Your task to perform on an android device: Go to internet settings Image 0: 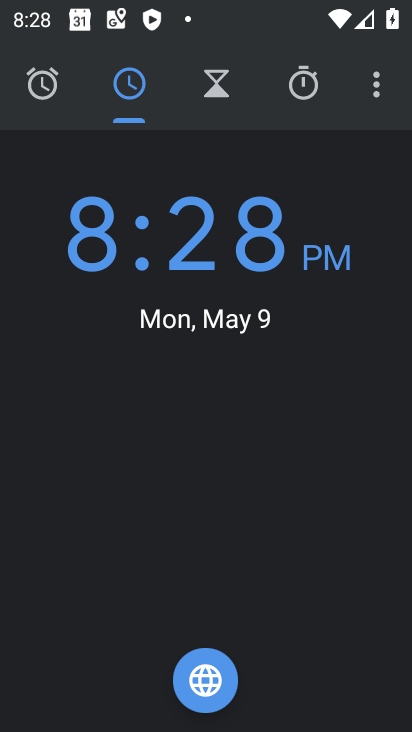
Step 0: press home button
Your task to perform on an android device: Go to internet settings Image 1: 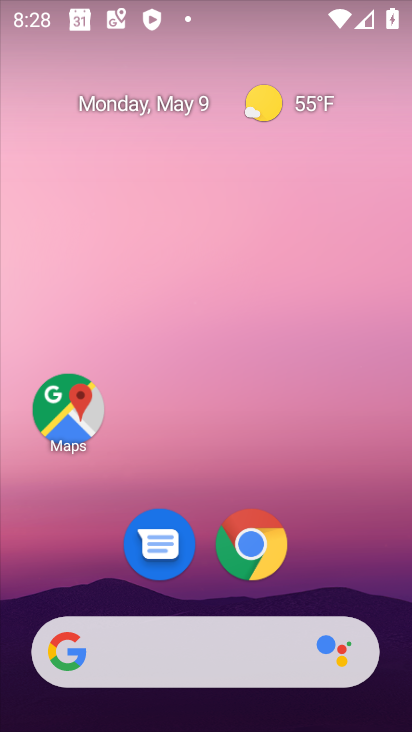
Step 1: drag from (191, 594) to (223, 122)
Your task to perform on an android device: Go to internet settings Image 2: 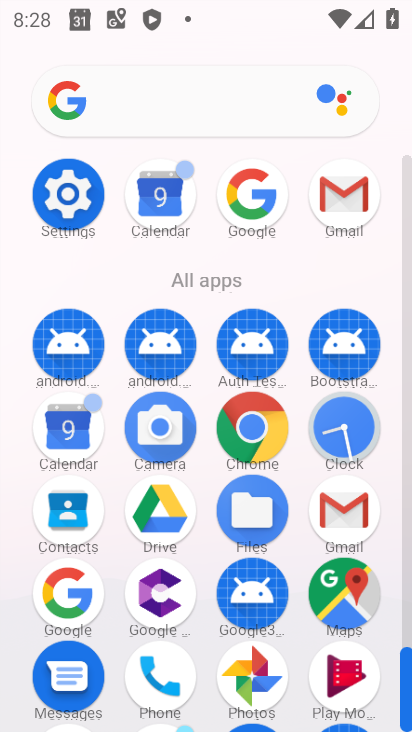
Step 2: click (60, 220)
Your task to perform on an android device: Go to internet settings Image 3: 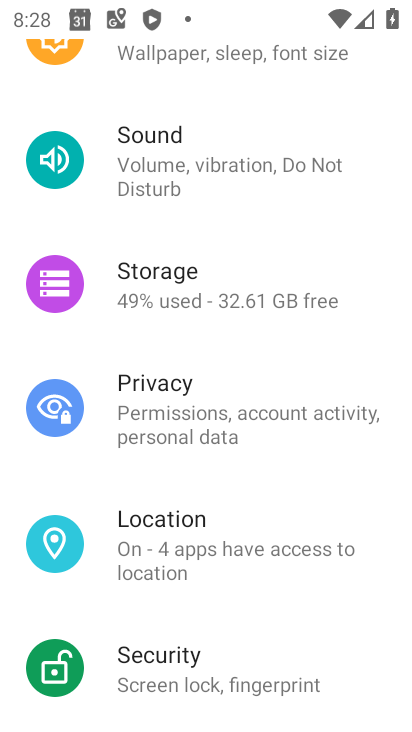
Step 3: drag from (224, 164) to (242, 552)
Your task to perform on an android device: Go to internet settings Image 4: 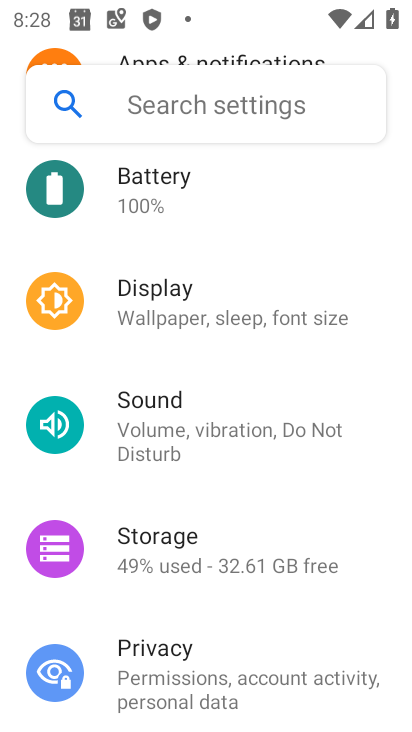
Step 4: drag from (235, 229) to (240, 578)
Your task to perform on an android device: Go to internet settings Image 5: 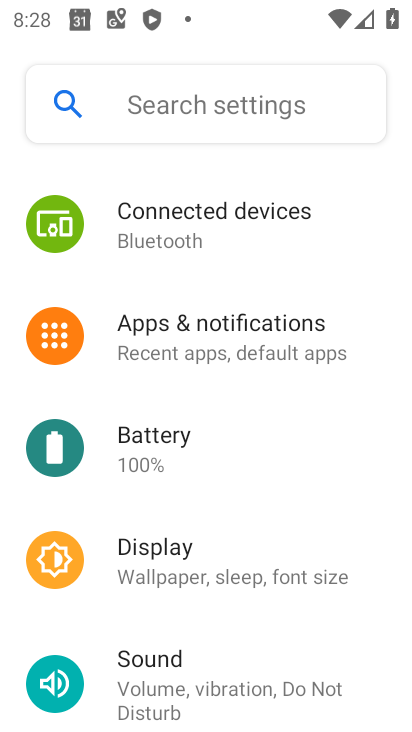
Step 5: drag from (204, 209) to (211, 575)
Your task to perform on an android device: Go to internet settings Image 6: 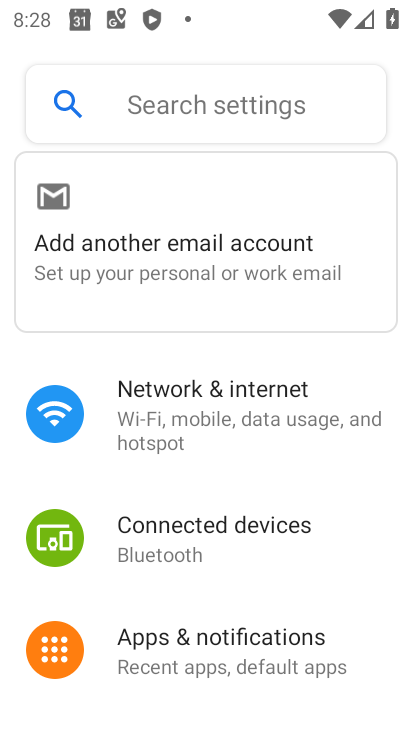
Step 6: click (223, 421)
Your task to perform on an android device: Go to internet settings Image 7: 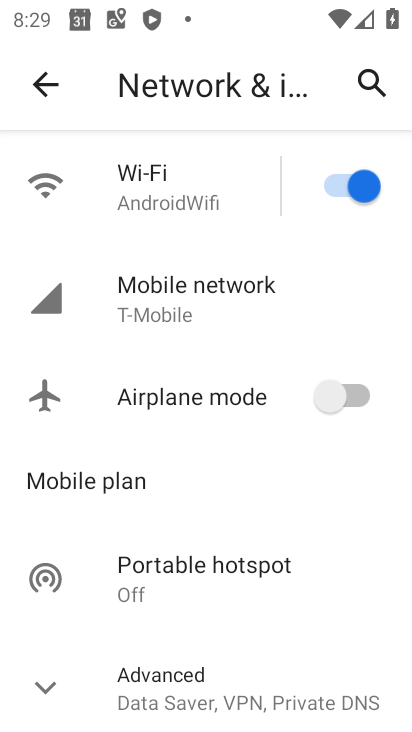
Step 7: click (188, 307)
Your task to perform on an android device: Go to internet settings Image 8: 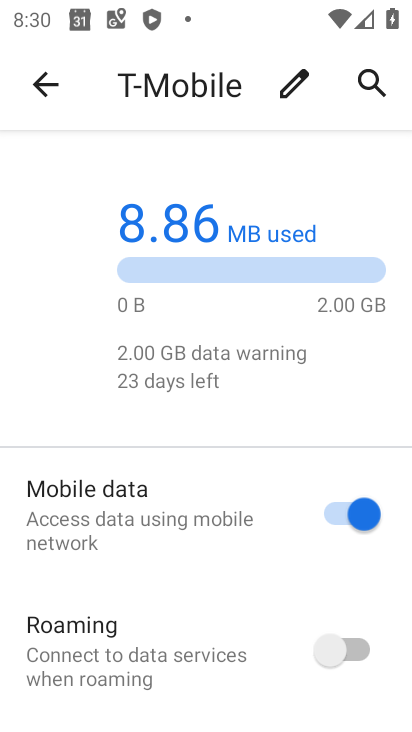
Step 8: task complete